Your task to perform on an android device: Search for "logitech g pro" on amazon.com, select the first entry, and add it to the cart. Image 0: 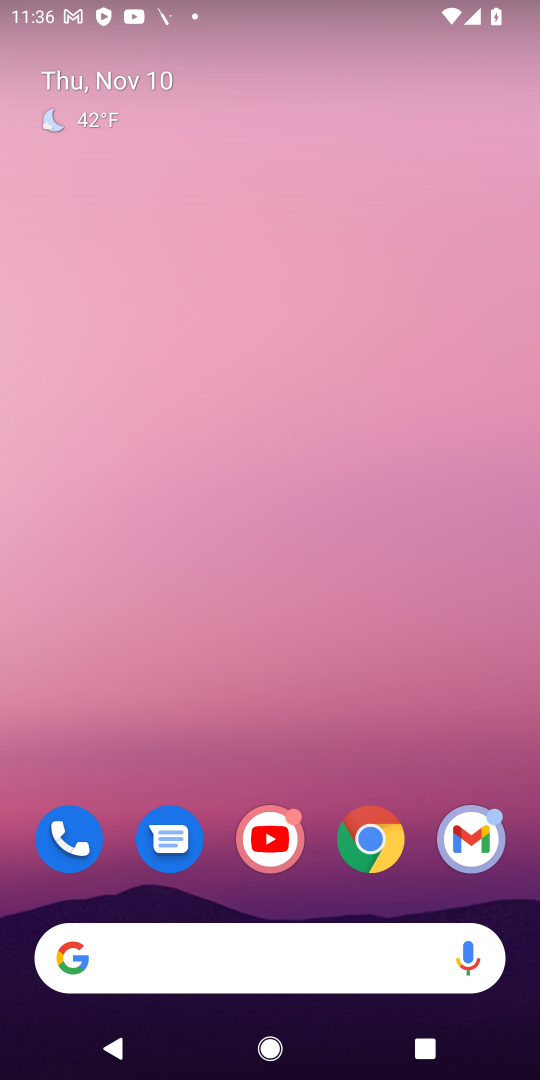
Step 0: click (383, 834)
Your task to perform on an android device: Search for "logitech g pro" on amazon.com, select the first entry, and add it to the cart. Image 1: 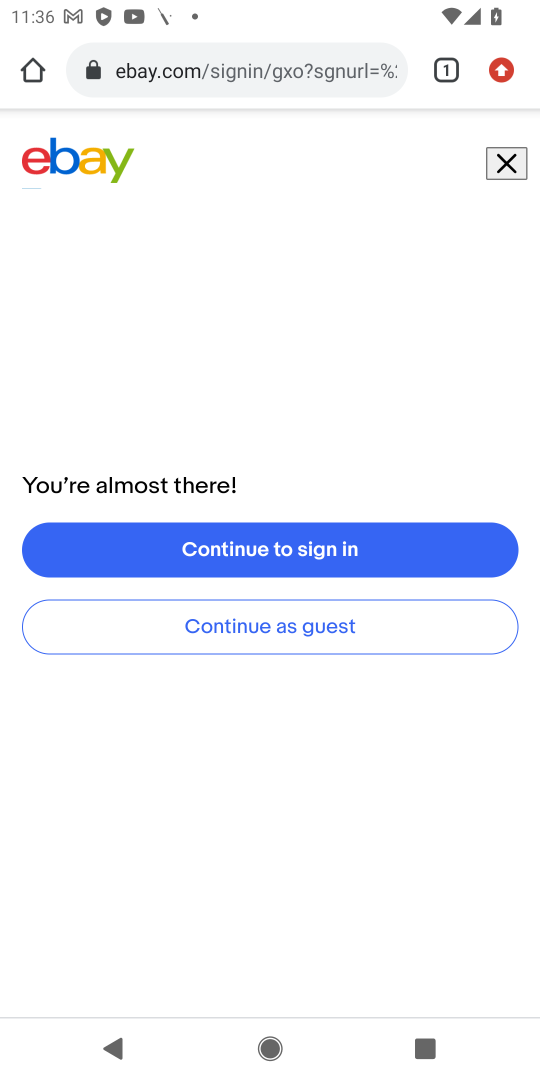
Step 1: click (325, 61)
Your task to perform on an android device: Search for "logitech g pro" on amazon.com, select the first entry, and add it to the cart. Image 2: 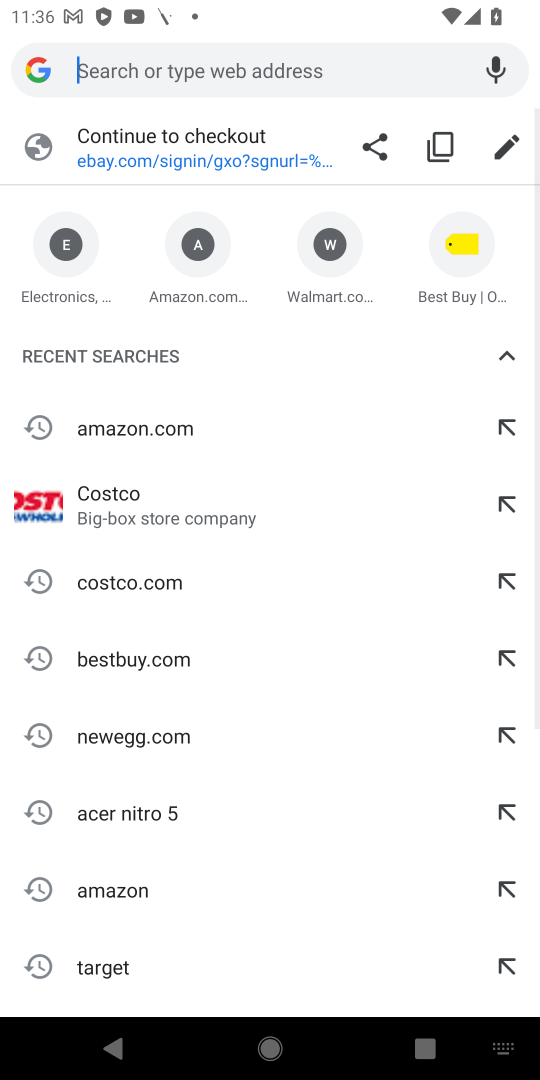
Step 2: click (173, 421)
Your task to perform on an android device: Search for "logitech g pro" on amazon.com, select the first entry, and add it to the cart. Image 3: 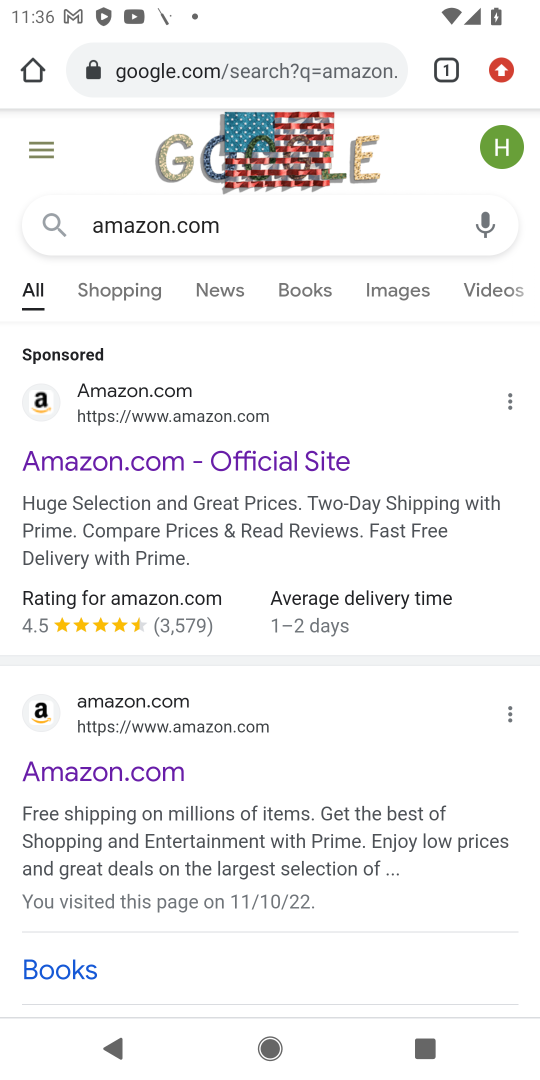
Step 3: click (209, 413)
Your task to perform on an android device: Search for "logitech g pro" on amazon.com, select the first entry, and add it to the cart. Image 4: 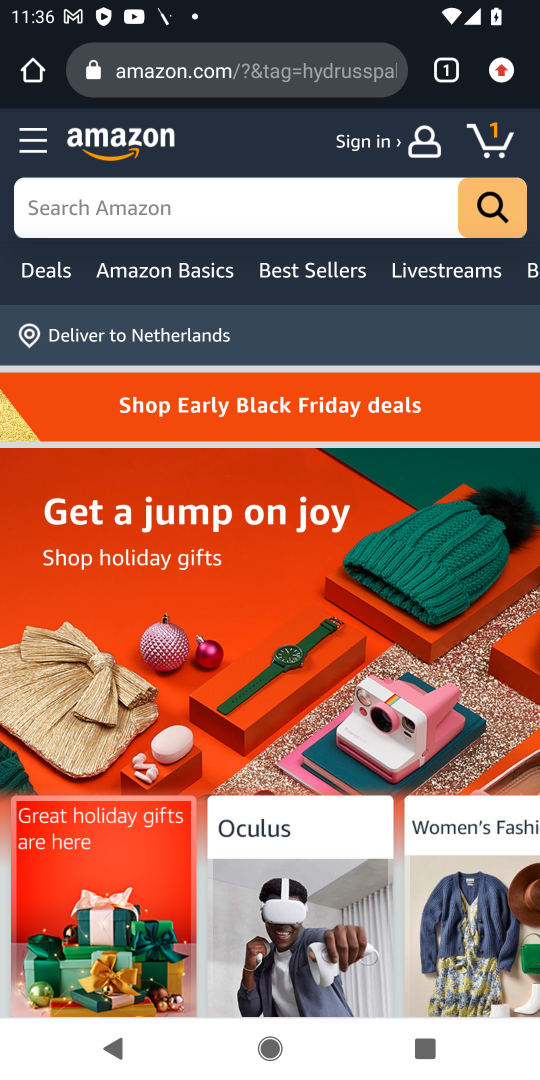
Step 4: click (368, 194)
Your task to perform on an android device: Search for "logitech g pro" on amazon.com, select the first entry, and add it to the cart. Image 5: 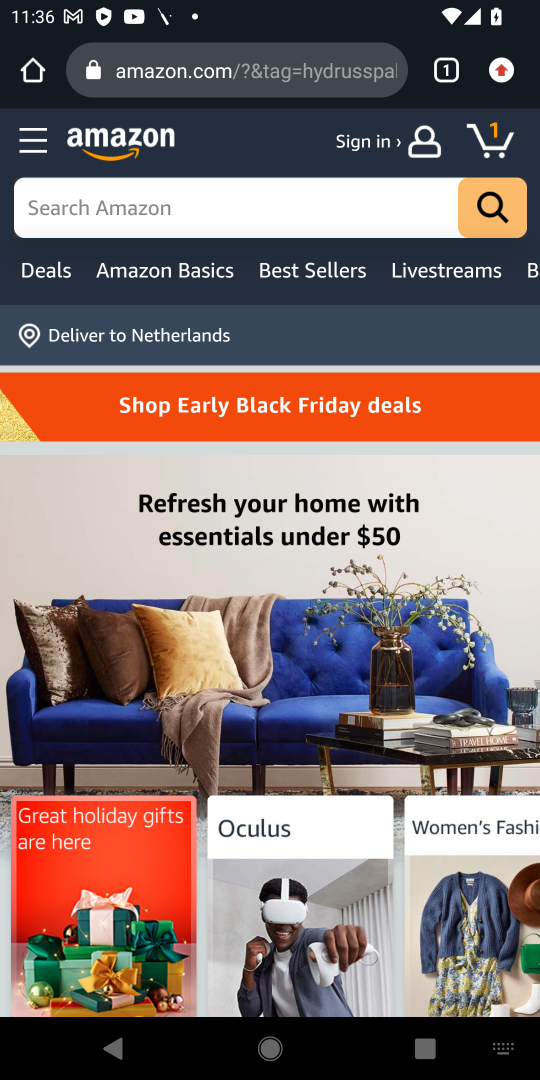
Step 5: type "logitech g pro"
Your task to perform on an android device: Search for "logitech g pro" on amazon.com, select the first entry, and add it to the cart. Image 6: 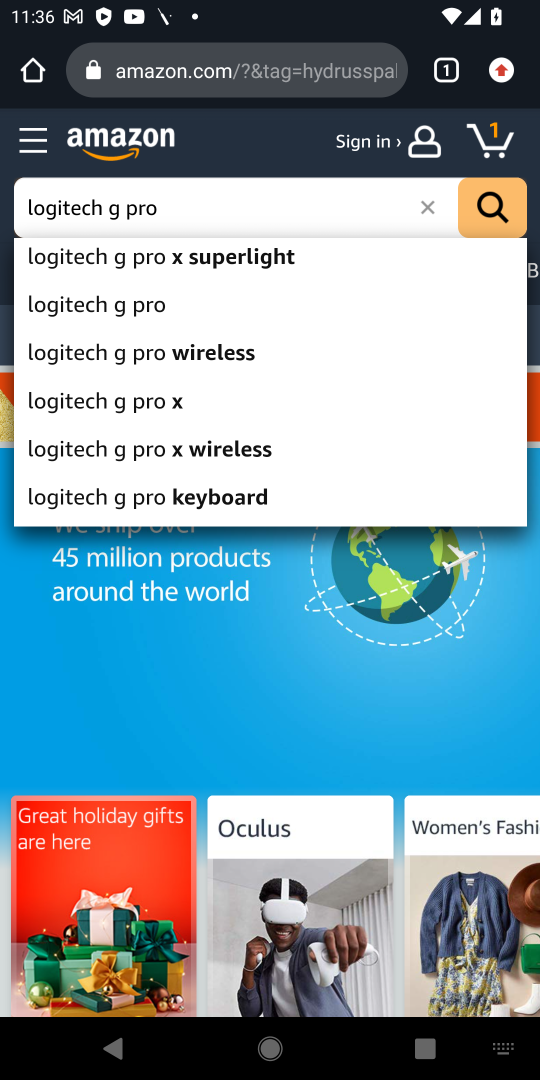
Step 6: click (152, 306)
Your task to perform on an android device: Search for "logitech g pro" on amazon.com, select the first entry, and add it to the cart. Image 7: 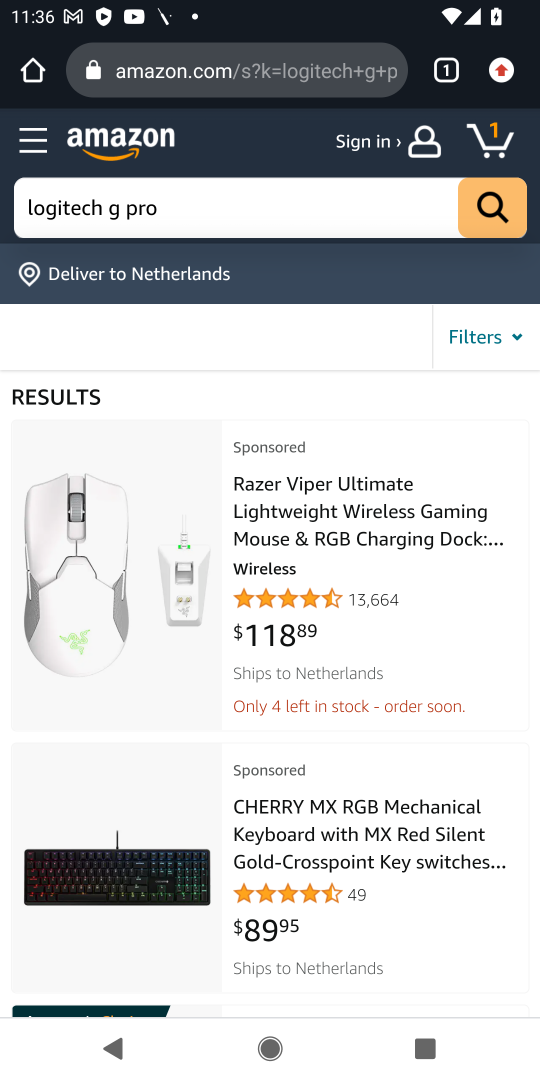
Step 7: drag from (451, 914) to (534, 312)
Your task to perform on an android device: Search for "logitech g pro" on amazon.com, select the first entry, and add it to the cart. Image 8: 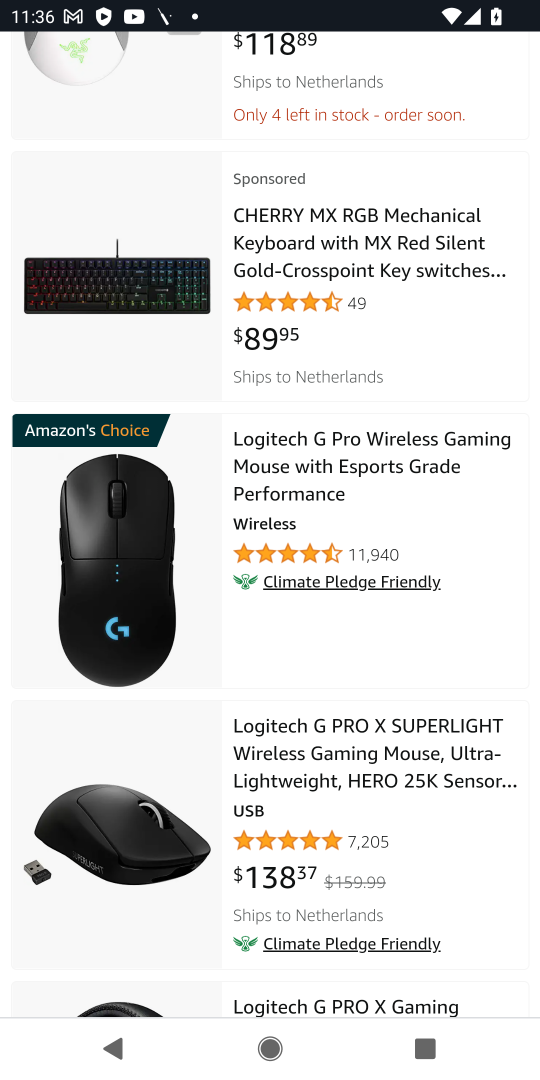
Step 8: drag from (501, 864) to (530, 630)
Your task to perform on an android device: Search for "logitech g pro" on amazon.com, select the first entry, and add it to the cart. Image 9: 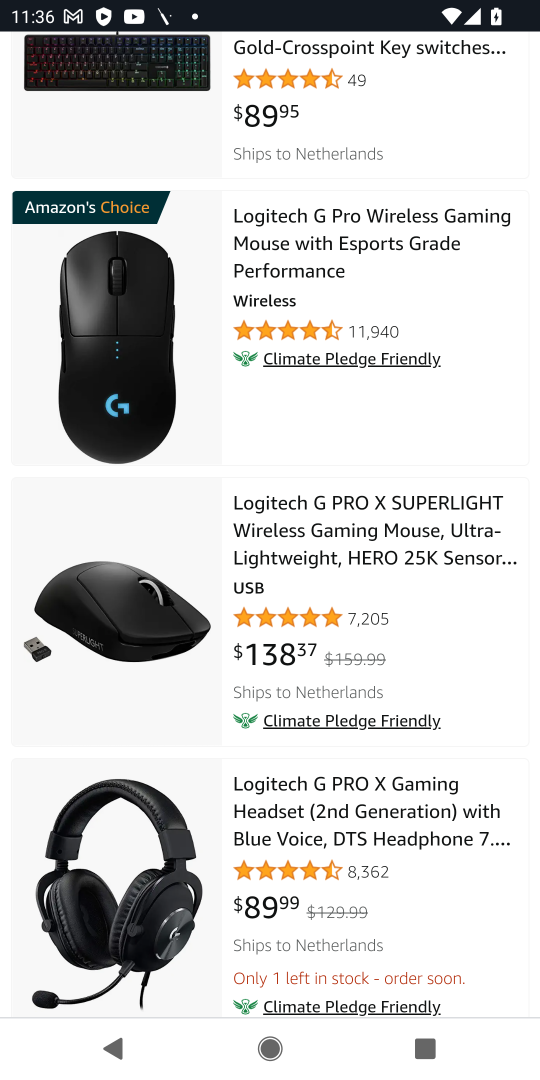
Step 9: click (155, 384)
Your task to perform on an android device: Search for "logitech g pro" on amazon.com, select the first entry, and add it to the cart. Image 10: 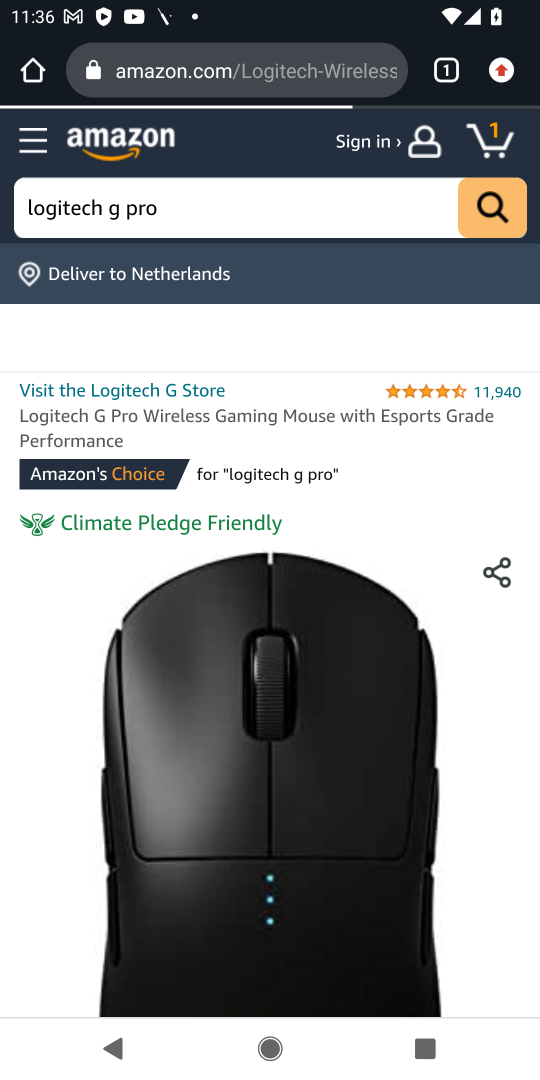
Step 10: drag from (468, 873) to (465, 194)
Your task to perform on an android device: Search for "logitech g pro" on amazon.com, select the first entry, and add it to the cart. Image 11: 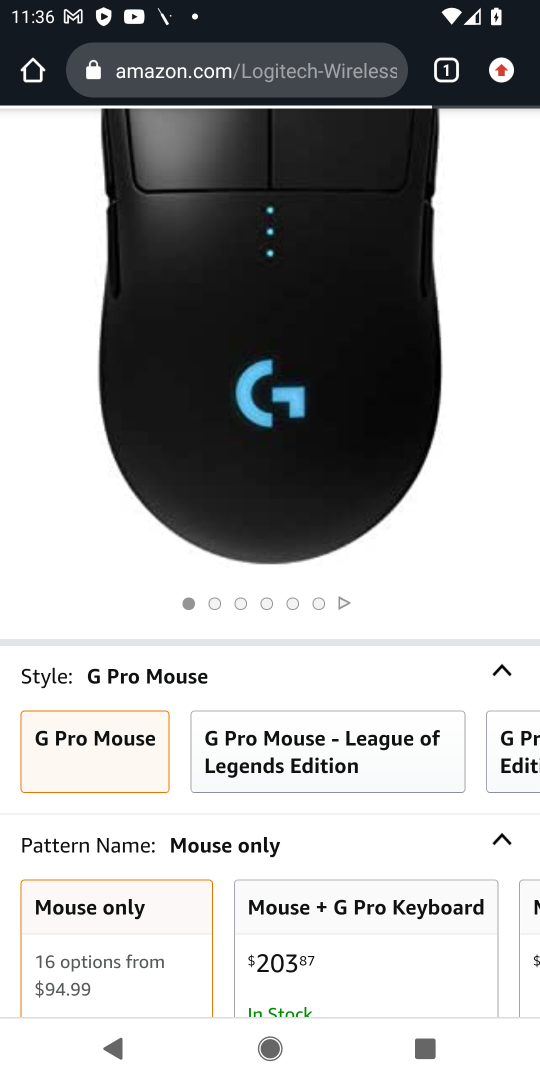
Step 11: drag from (410, 811) to (363, 279)
Your task to perform on an android device: Search for "logitech g pro" on amazon.com, select the first entry, and add it to the cart. Image 12: 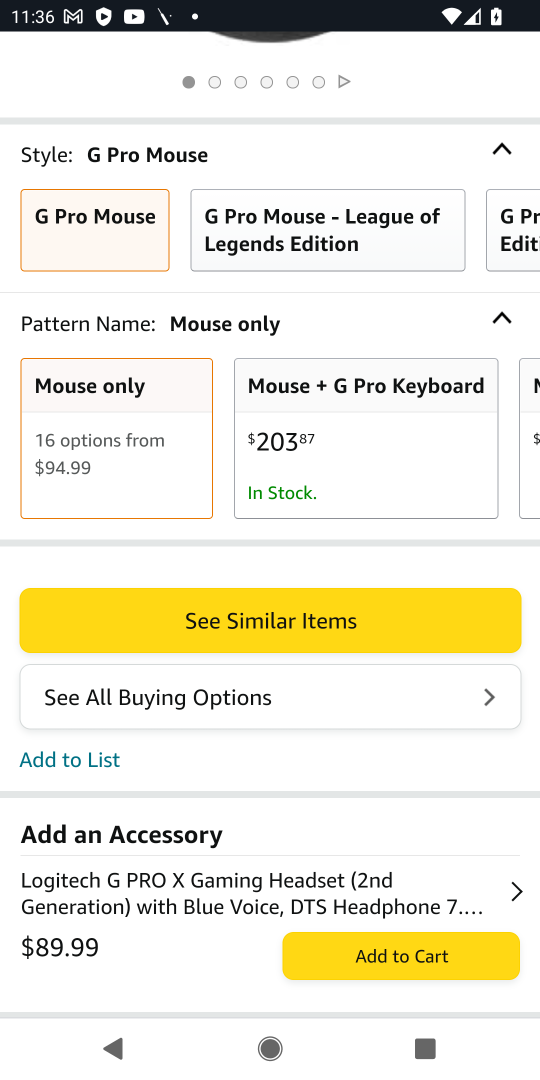
Step 12: press back button
Your task to perform on an android device: Search for "logitech g pro" on amazon.com, select the first entry, and add it to the cart. Image 13: 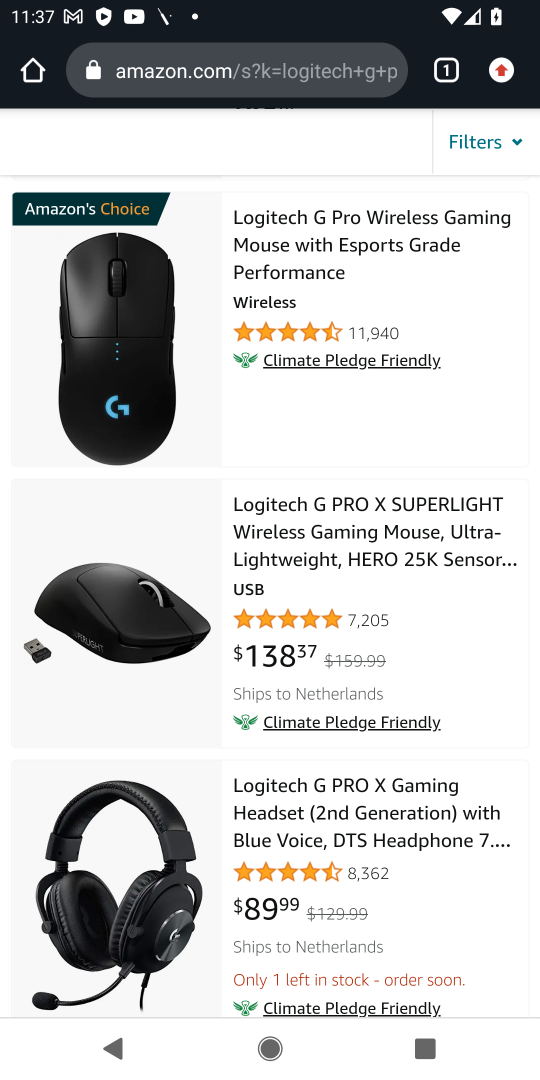
Step 13: click (115, 616)
Your task to perform on an android device: Search for "logitech g pro" on amazon.com, select the first entry, and add it to the cart. Image 14: 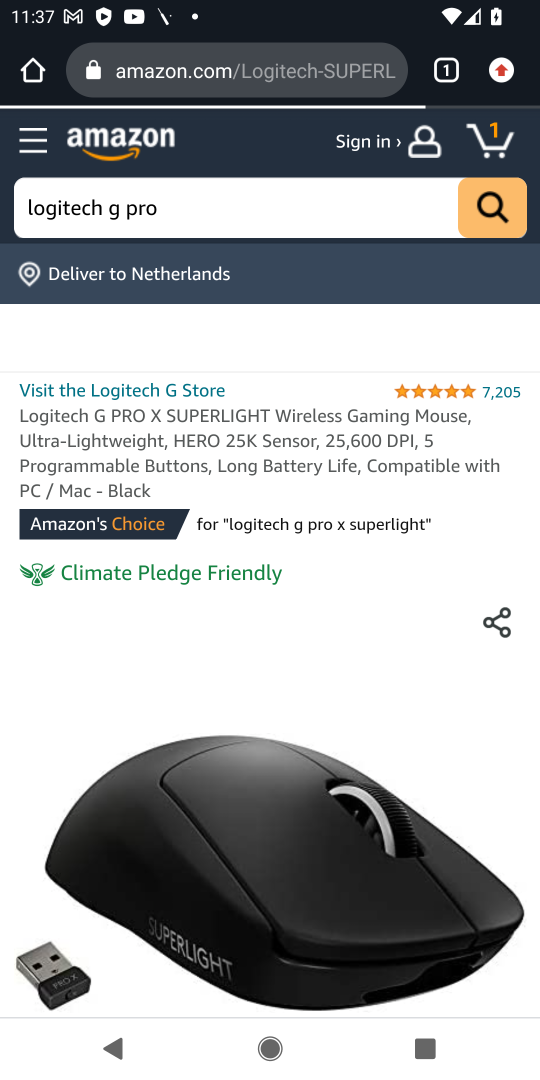
Step 14: drag from (413, 736) to (446, 183)
Your task to perform on an android device: Search for "logitech g pro" on amazon.com, select the first entry, and add it to the cart. Image 15: 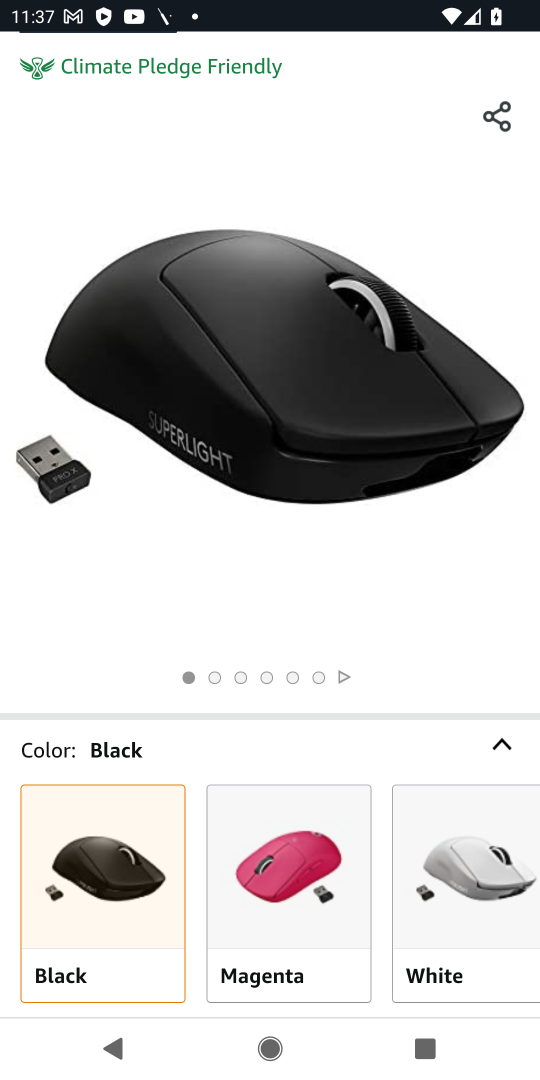
Step 15: drag from (424, 540) to (467, 181)
Your task to perform on an android device: Search for "logitech g pro" on amazon.com, select the first entry, and add it to the cart. Image 16: 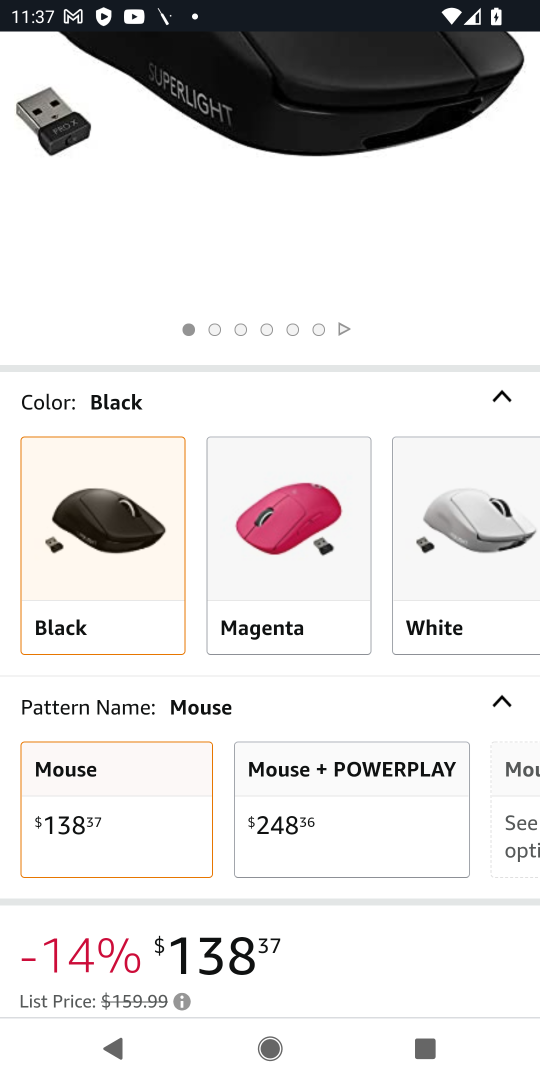
Step 16: drag from (436, 903) to (384, 228)
Your task to perform on an android device: Search for "logitech g pro" on amazon.com, select the first entry, and add it to the cart. Image 17: 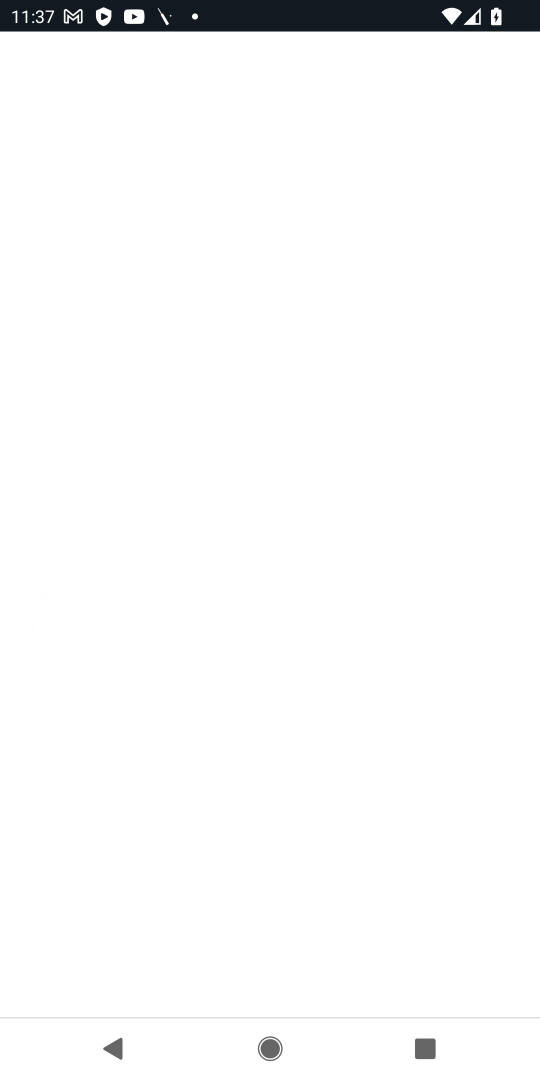
Step 17: click (292, 694)
Your task to perform on an android device: Search for "logitech g pro" on amazon.com, select the first entry, and add it to the cart. Image 18: 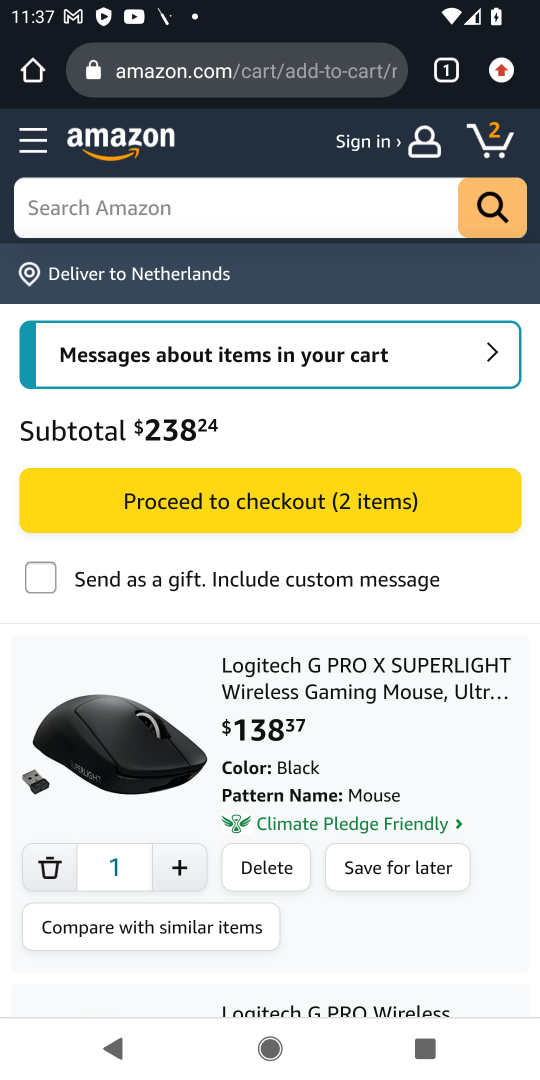
Step 18: task complete